Your task to perform on an android device: Open calendar and show me the third week of next month Image 0: 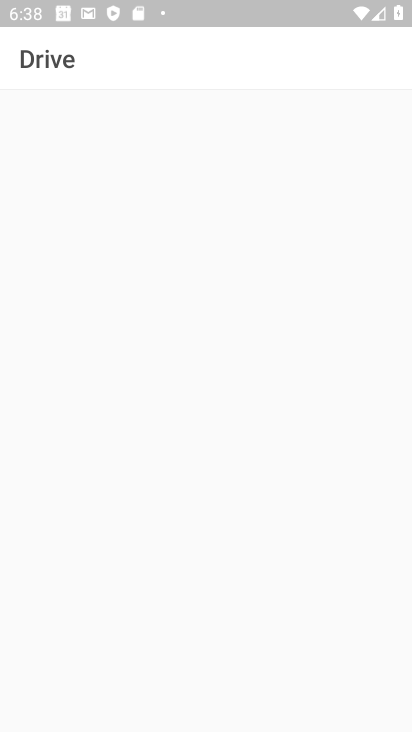
Step 0: press home button
Your task to perform on an android device: Open calendar and show me the third week of next month Image 1: 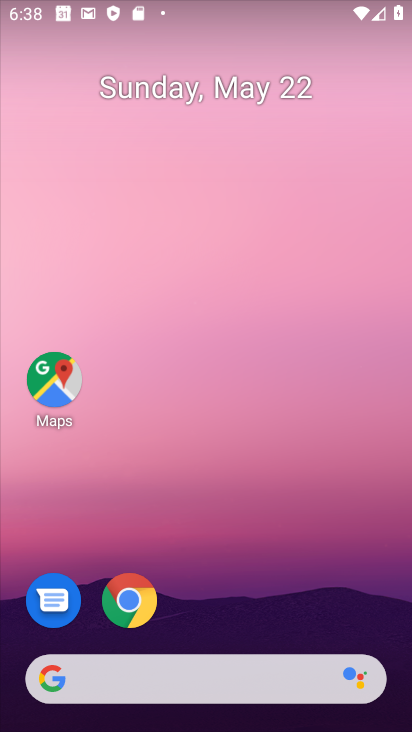
Step 1: drag from (343, 605) to (44, 4)
Your task to perform on an android device: Open calendar and show me the third week of next month Image 2: 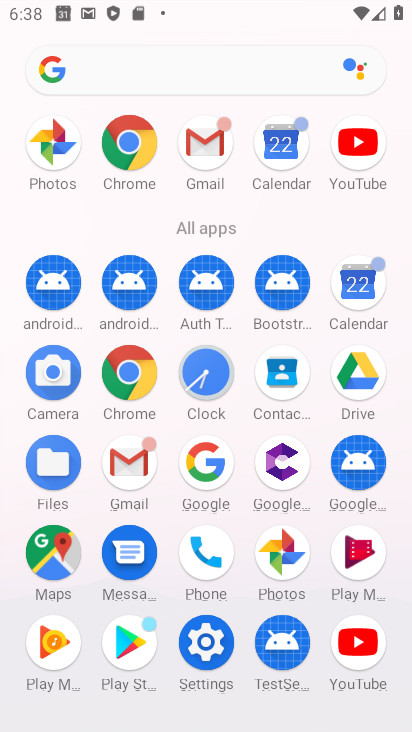
Step 2: click (349, 279)
Your task to perform on an android device: Open calendar and show me the third week of next month Image 3: 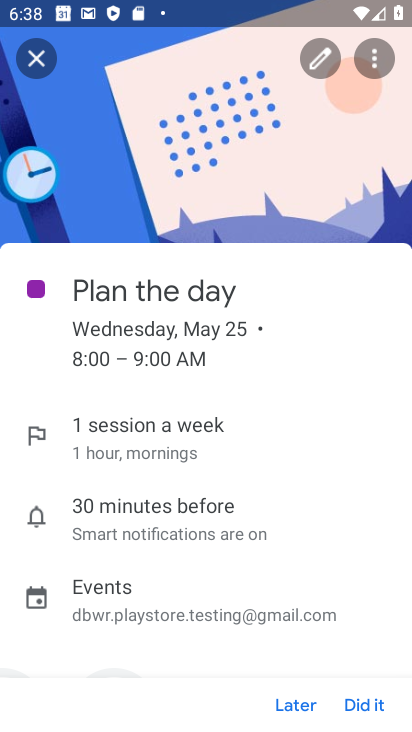
Step 3: press back button
Your task to perform on an android device: Open calendar and show me the third week of next month Image 4: 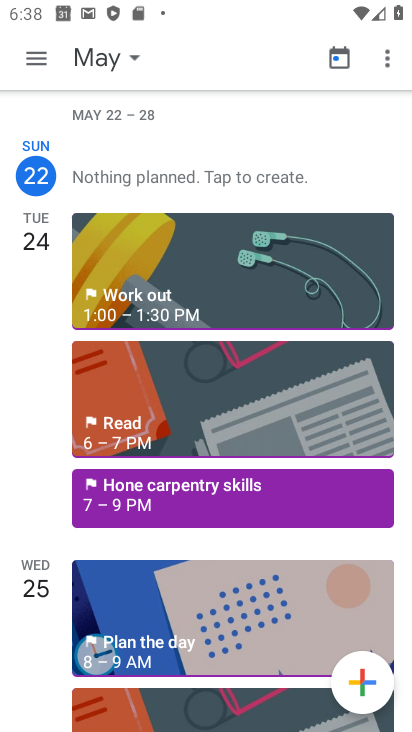
Step 4: click (90, 61)
Your task to perform on an android device: Open calendar and show me the third week of next month Image 5: 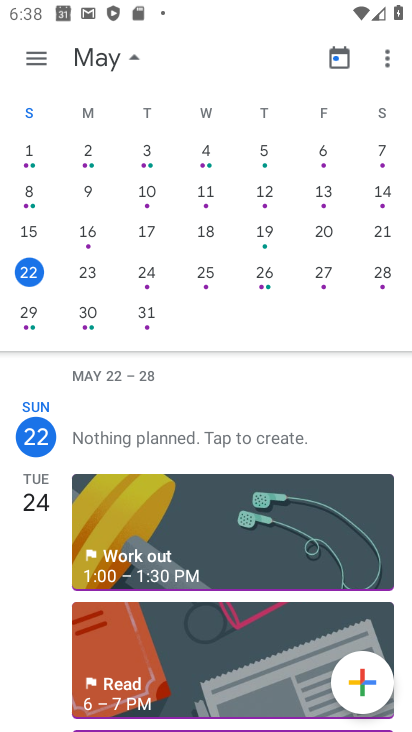
Step 5: drag from (346, 217) to (10, 238)
Your task to perform on an android device: Open calendar and show me the third week of next month Image 6: 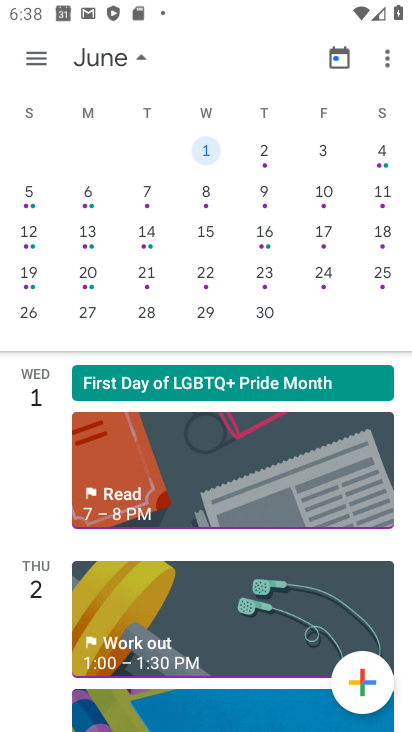
Step 6: click (153, 278)
Your task to perform on an android device: Open calendar and show me the third week of next month Image 7: 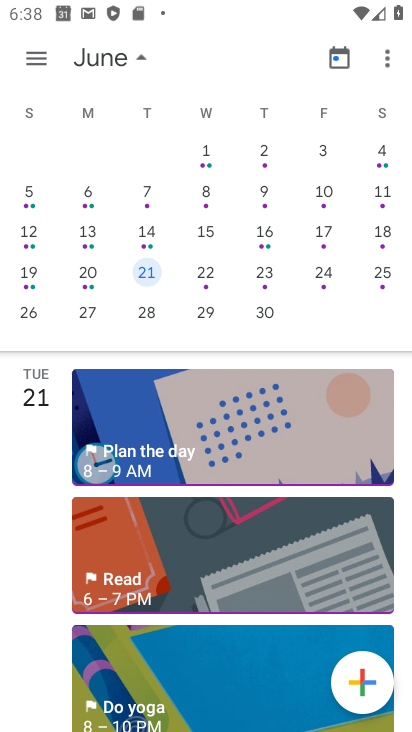
Step 7: task complete